Your task to perform on an android device: Empty the shopping cart on target.com. Image 0: 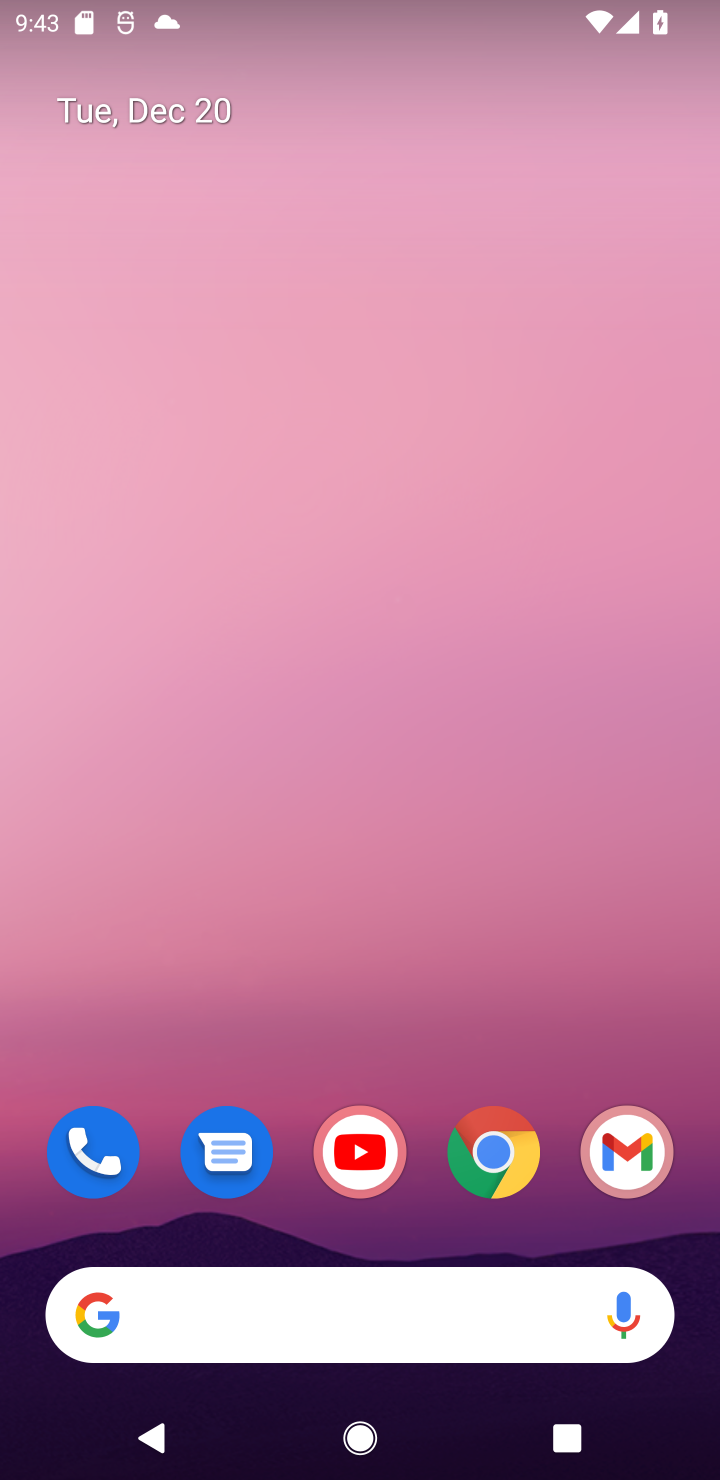
Step 0: click (396, 1475)
Your task to perform on an android device: Empty the shopping cart on target.com. Image 1: 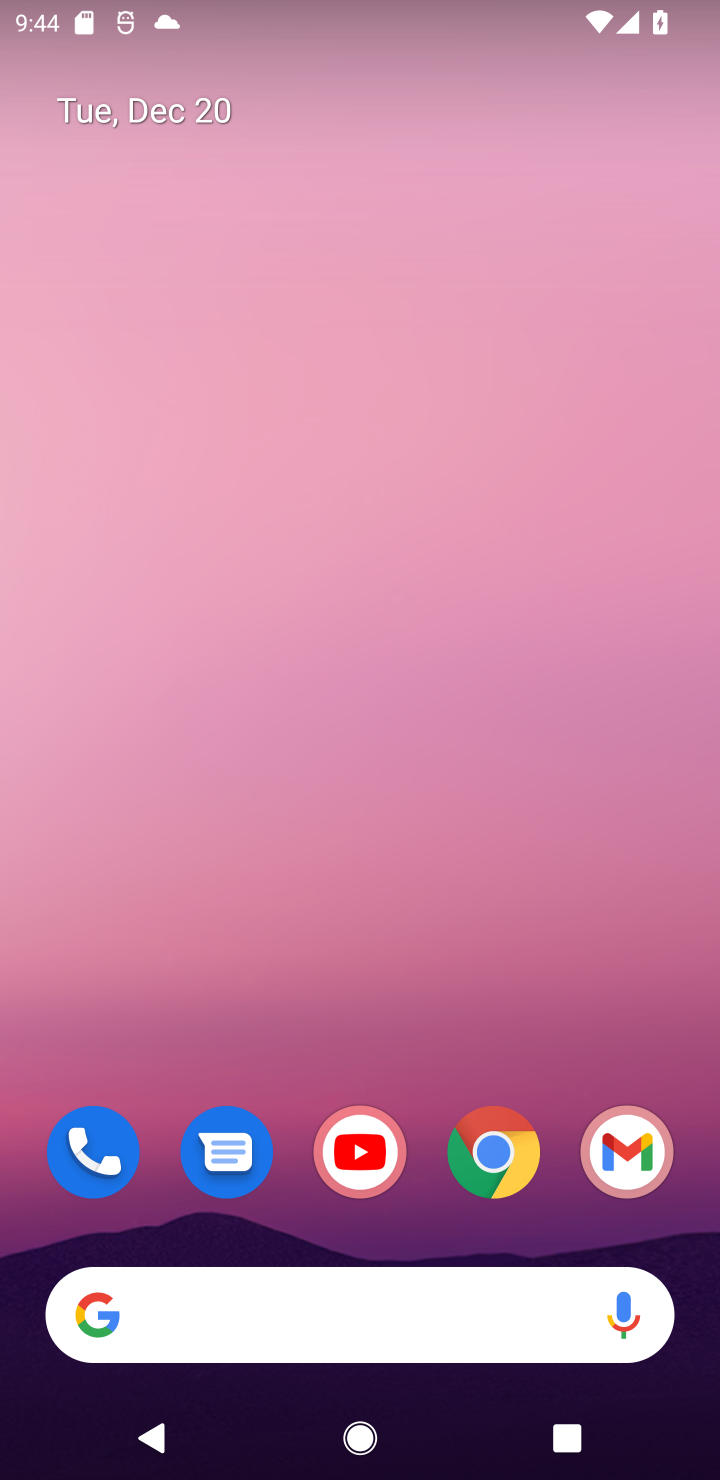
Step 1: click (484, 1169)
Your task to perform on an android device: Empty the shopping cart on target.com. Image 2: 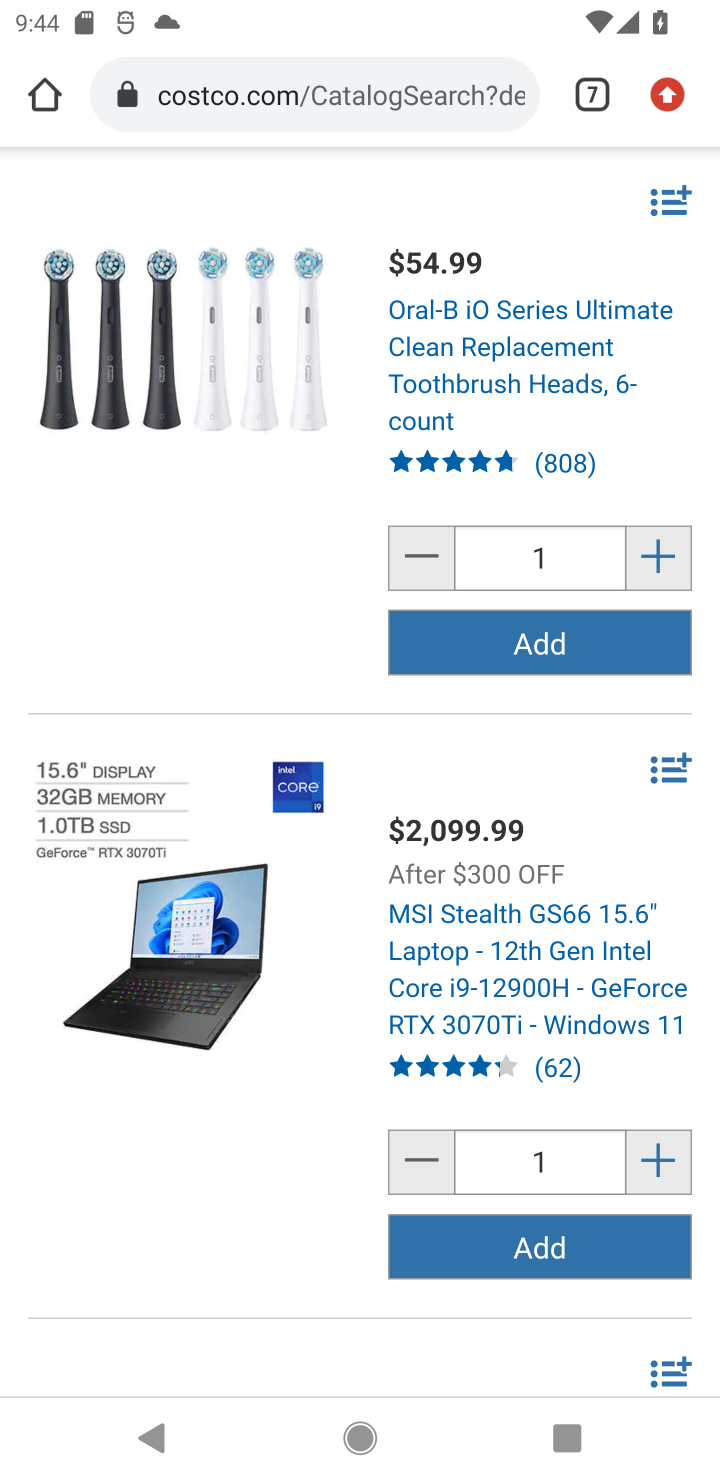
Step 2: click (594, 92)
Your task to perform on an android device: Empty the shopping cart on target.com. Image 3: 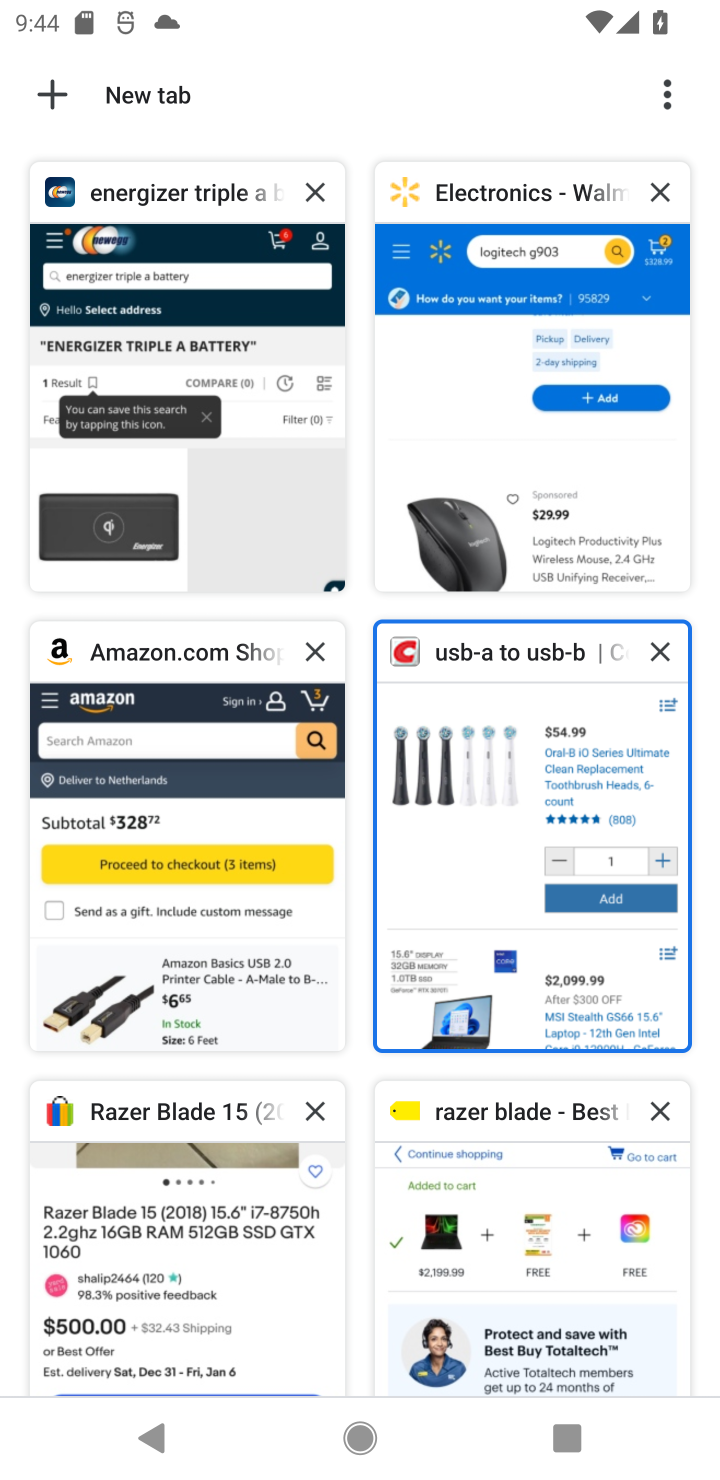
Step 3: drag from (414, 1219) to (479, 459)
Your task to perform on an android device: Empty the shopping cart on target.com. Image 4: 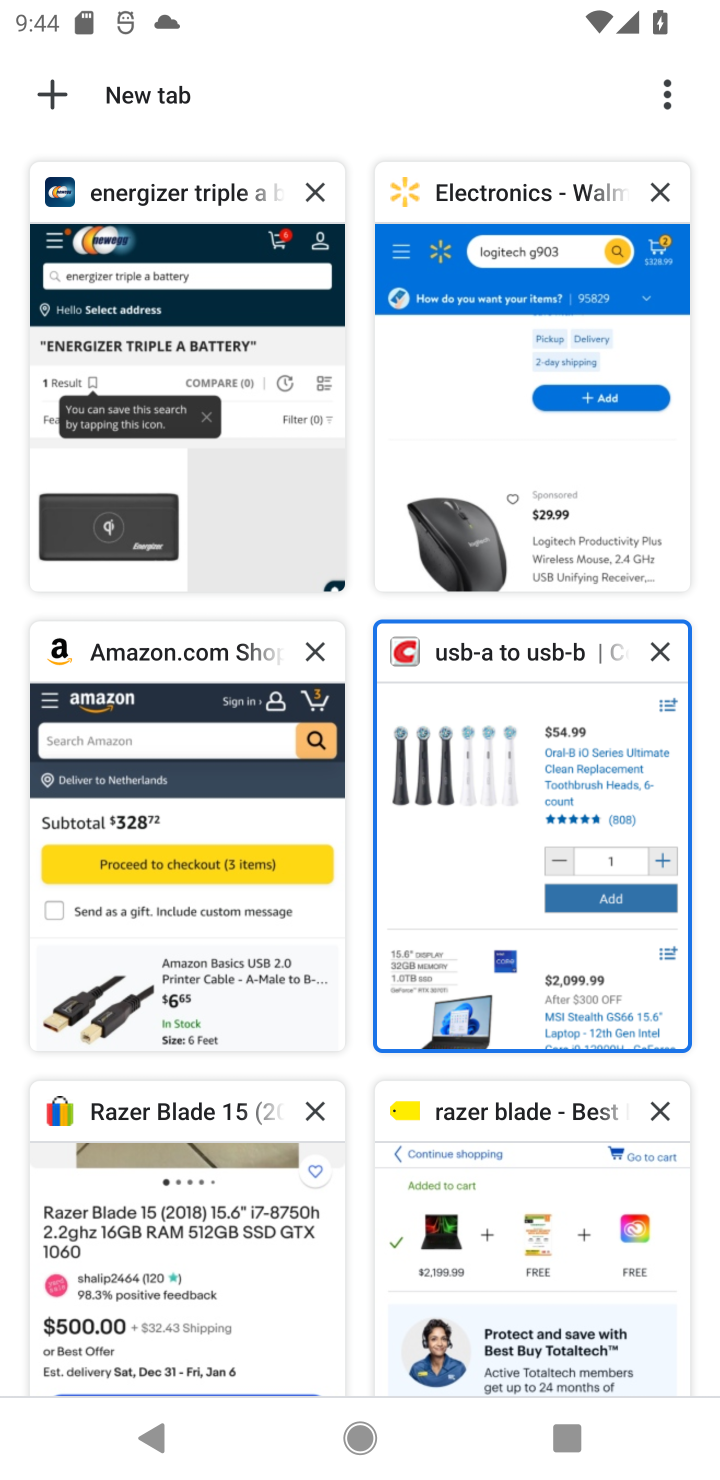
Step 4: drag from (349, 1160) to (513, 303)
Your task to perform on an android device: Empty the shopping cart on target.com. Image 5: 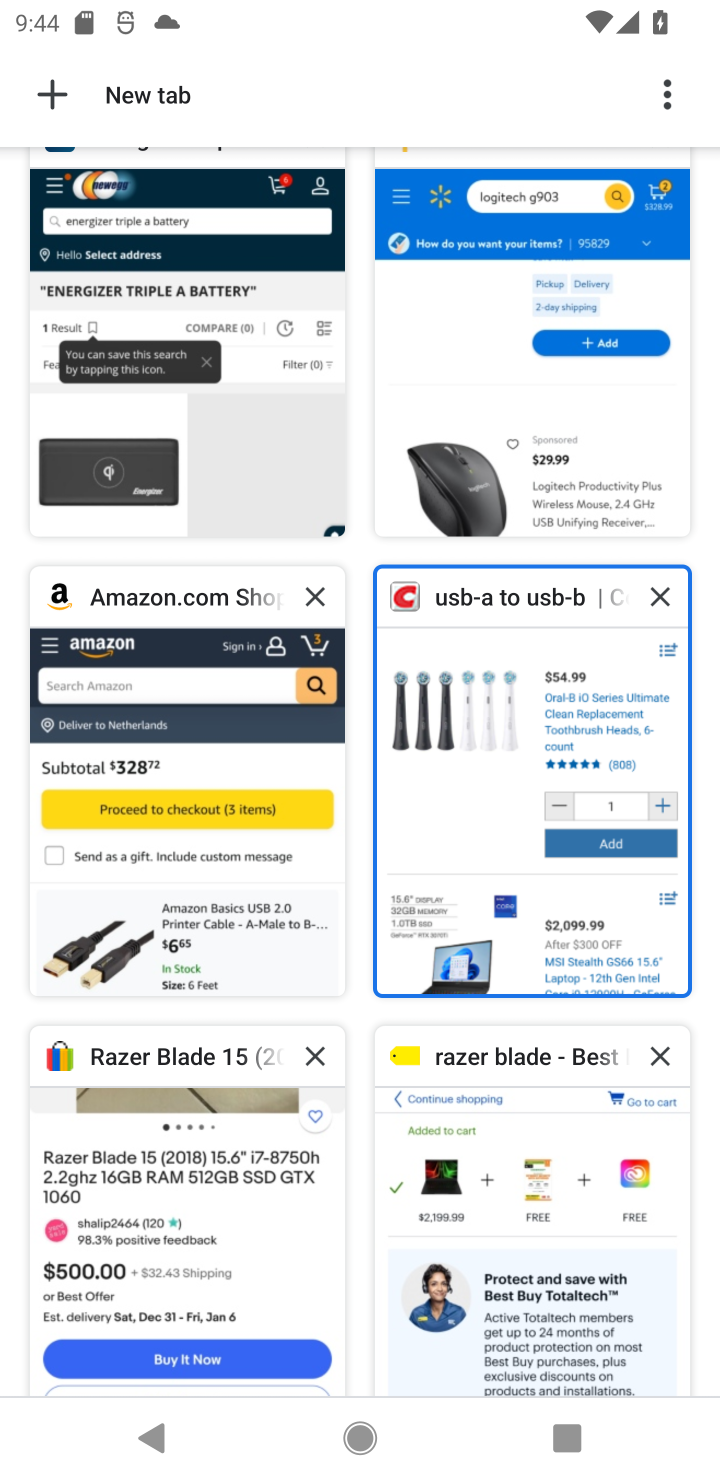
Step 5: drag from (259, 1175) to (355, 412)
Your task to perform on an android device: Empty the shopping cart on target.com. Image 6: 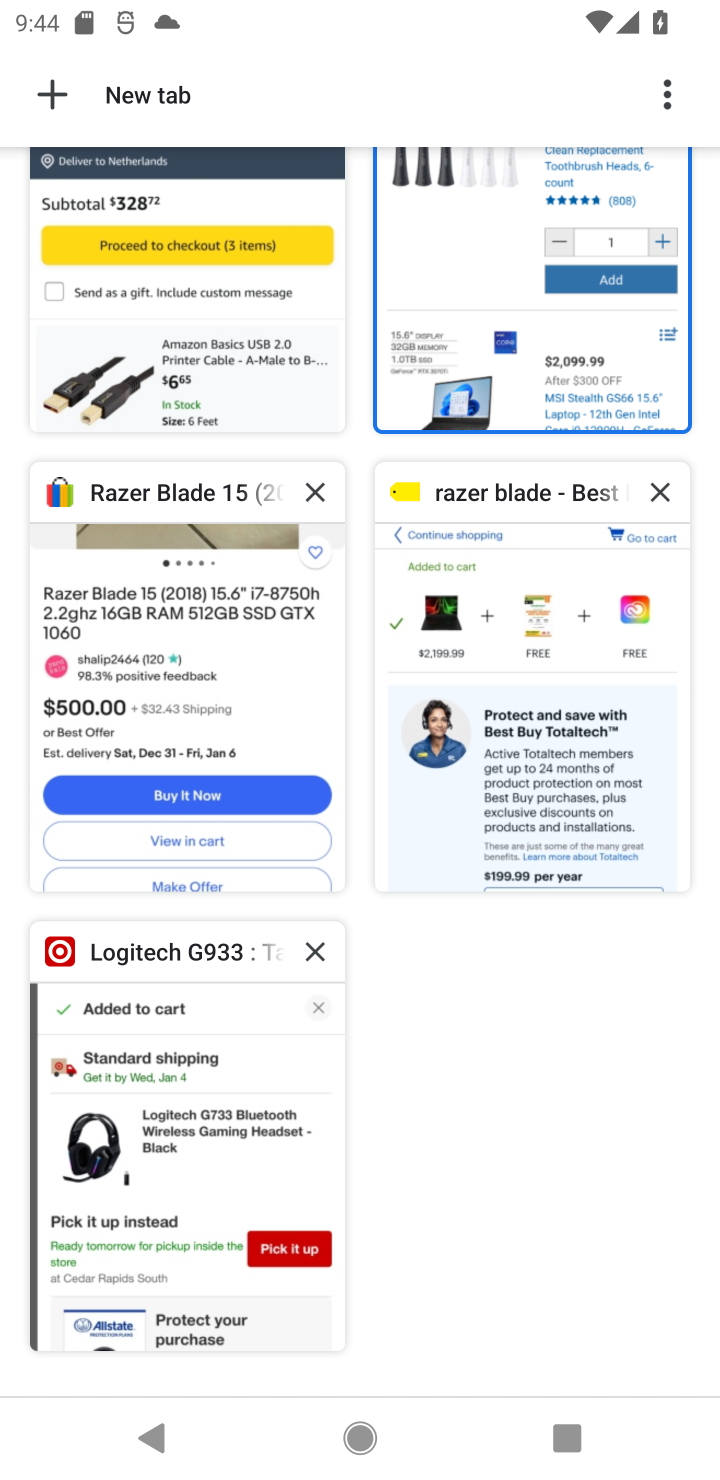
Step 6: click (123, 1101)
Your task to perform on an android device: Empty the shopping cart on target.com. Image 7: 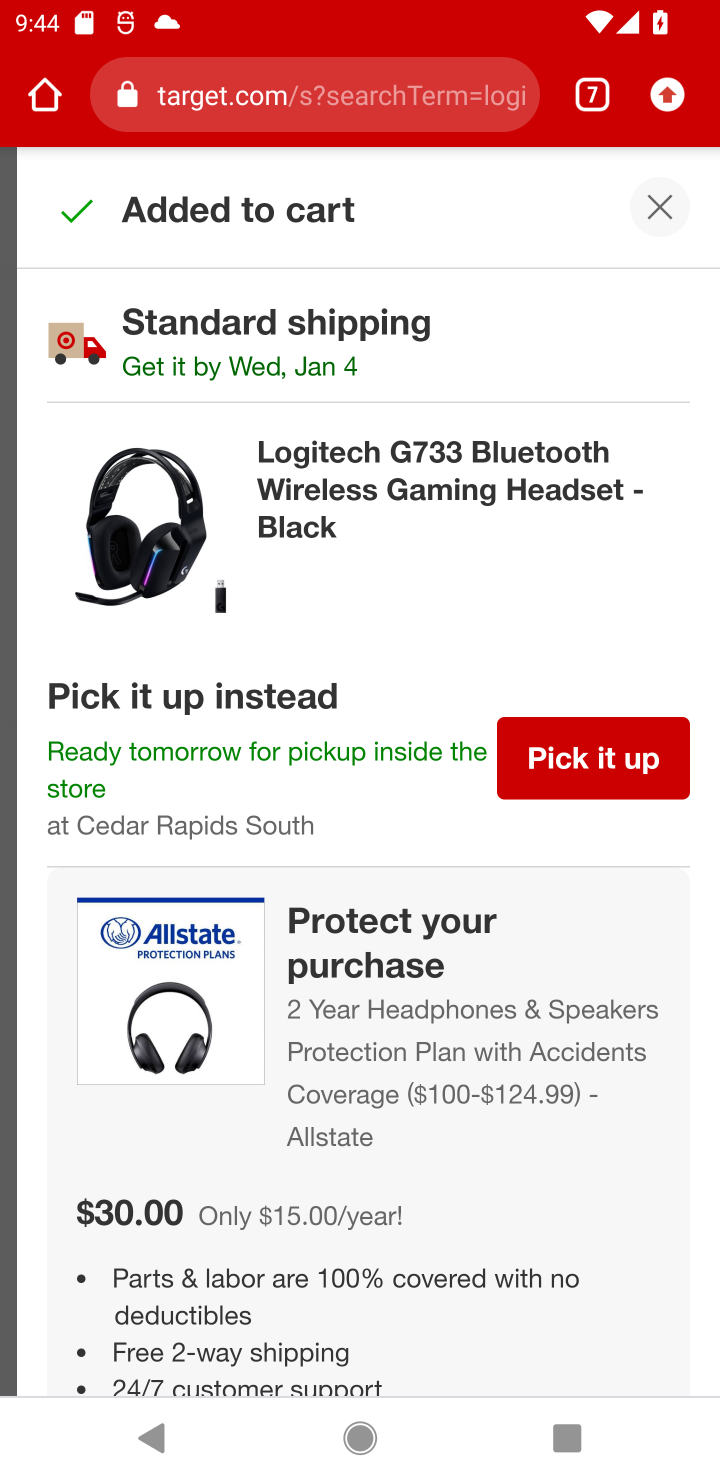
Step 7: click (661, 206)
Your task to perform on an android device: Empty the shopping cart on target.com. Image 8: 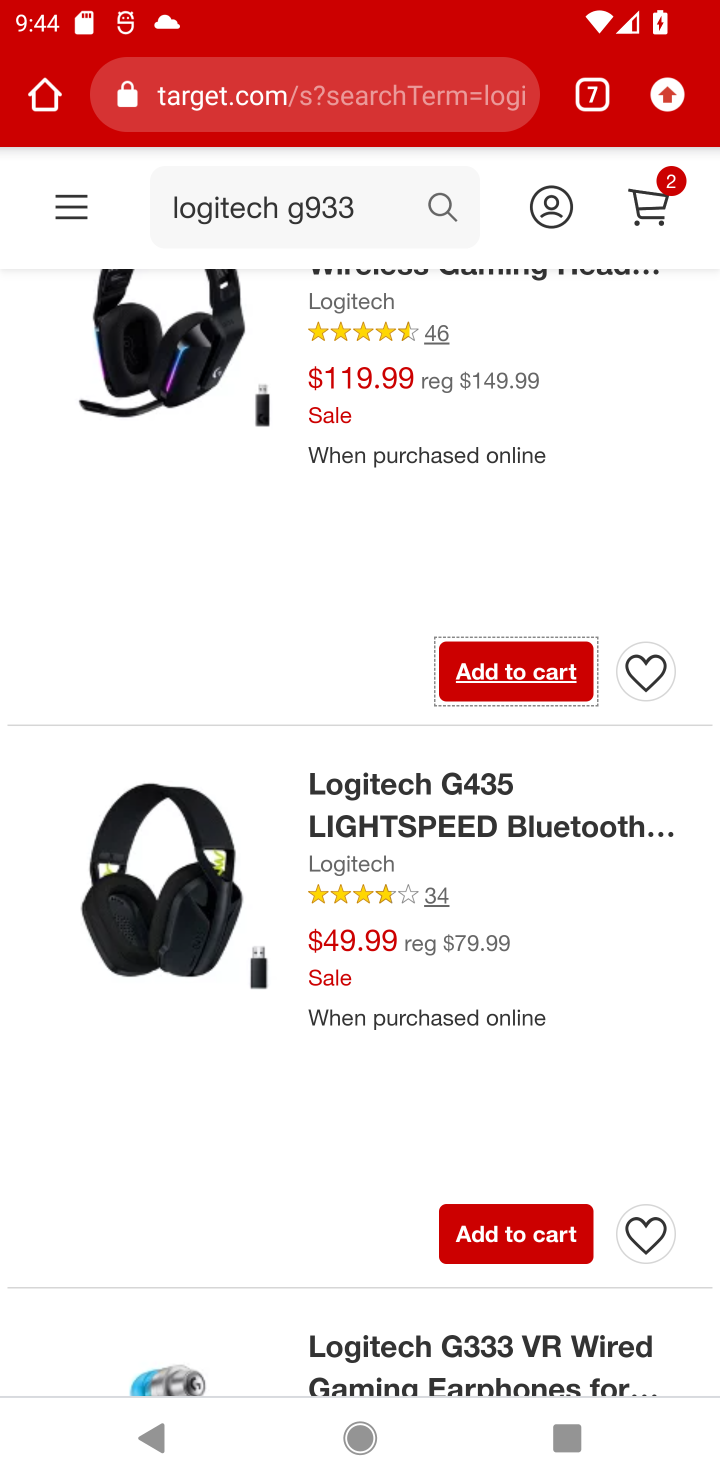
Step 8: click (662, 214)
Your task to perform on an android device: Empty the shopping cart on target.com. Image 9: 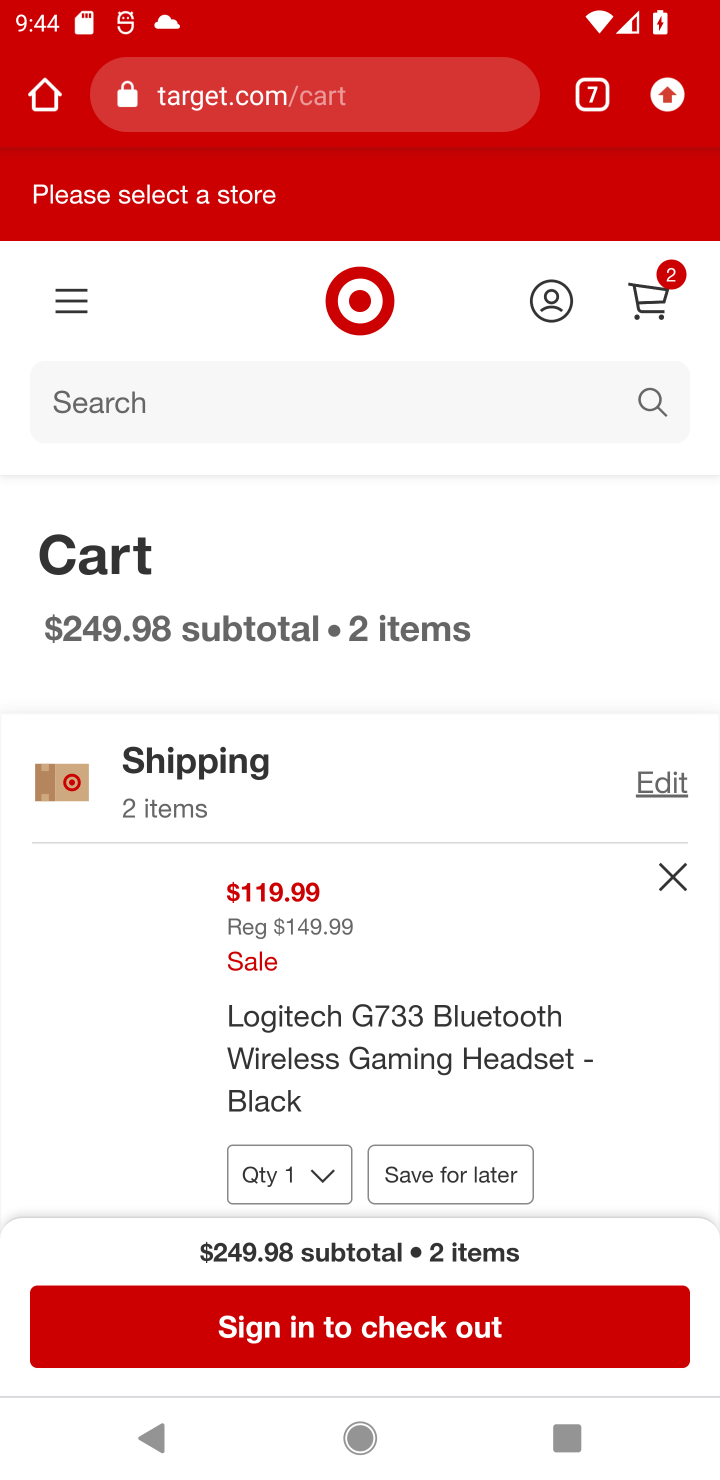
Step 9: click (673, 870)
Your task to perform on an android device: Empty the shopping cart on target.com. Image 10: 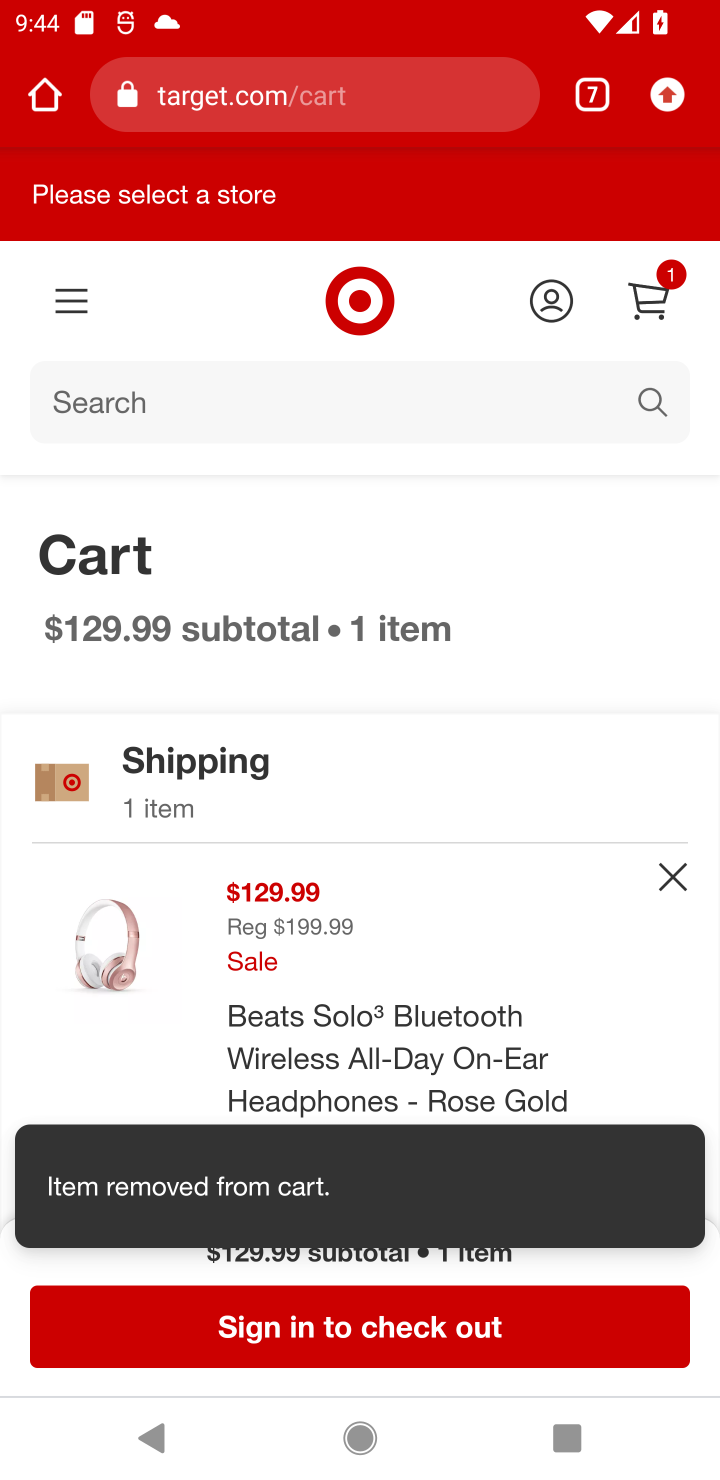
Step 10: click (673, 870)
Your task to perform on an android device: Empty the shopping cart on target.com. Image 11: 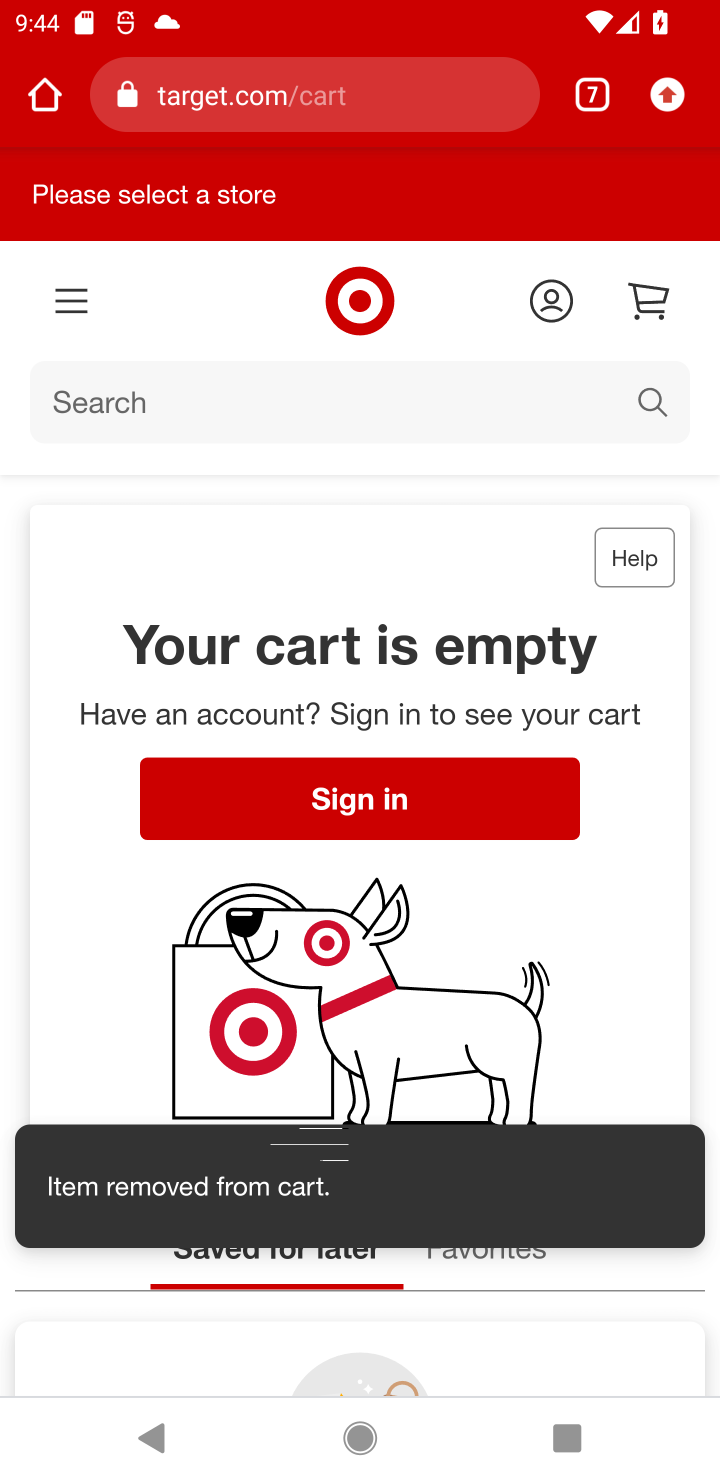
Step 11: task complete